Your task to perform on an android device: Open calendar and show me the second week of next month Image 0: 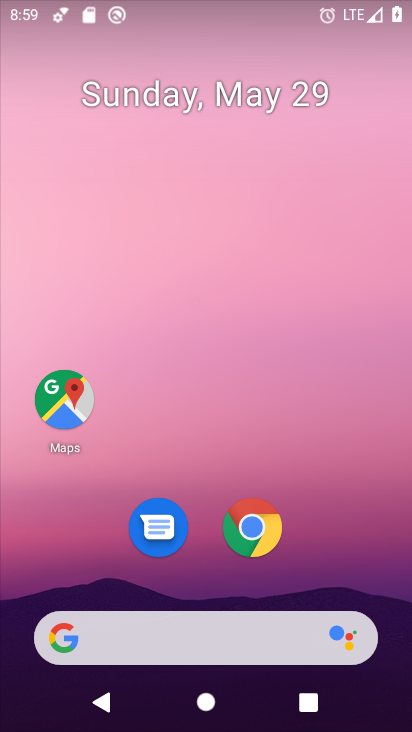
Step 0: drag from (208, 579) to (233, 0)
Your task to perform on an android device: Open calendar and show me the second week of next month Image 1: 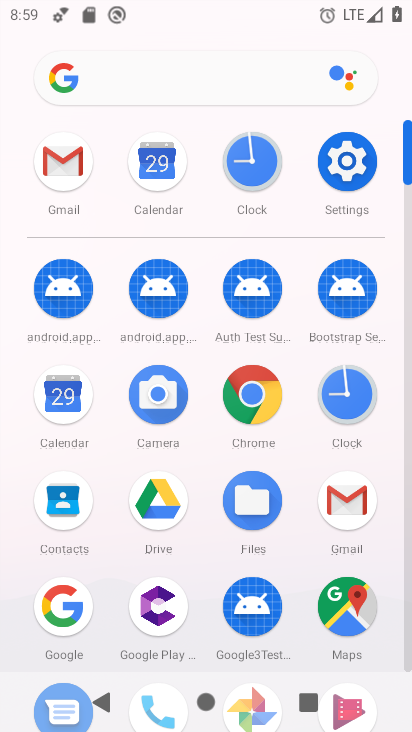
Step 1: click (61, 393)
Your task to perform on an android device: Open calendar and show me the second week of next month Image 2: 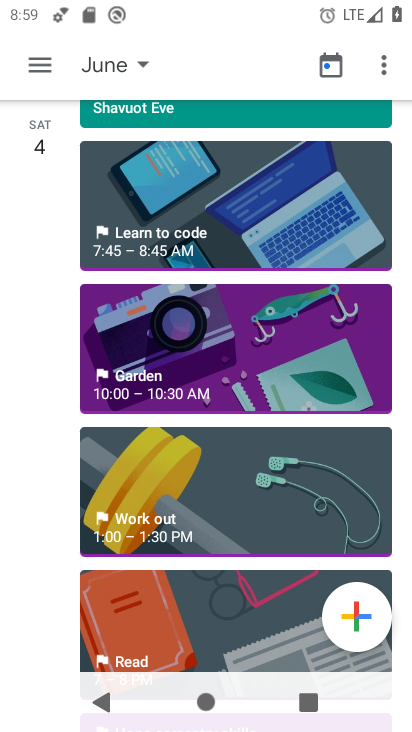
Step 2: click (138, 63)
Your task to perform on an android device: Open calendar and show me the second week of next month Image 3: 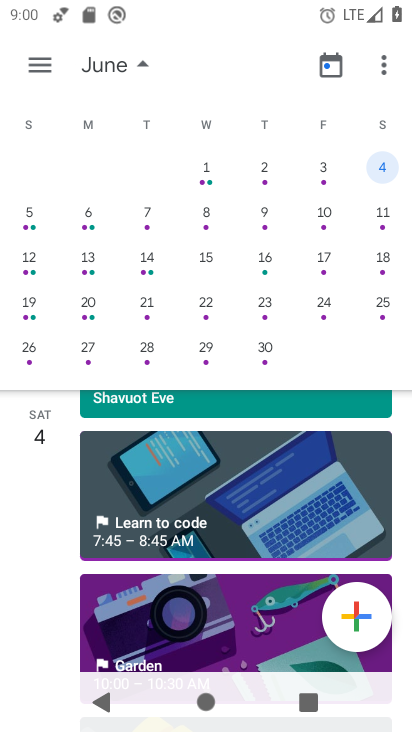
Step 3: click (29, 222)
Your task to perform on an android device: Open calendar and show me the second week of next month Image 4: 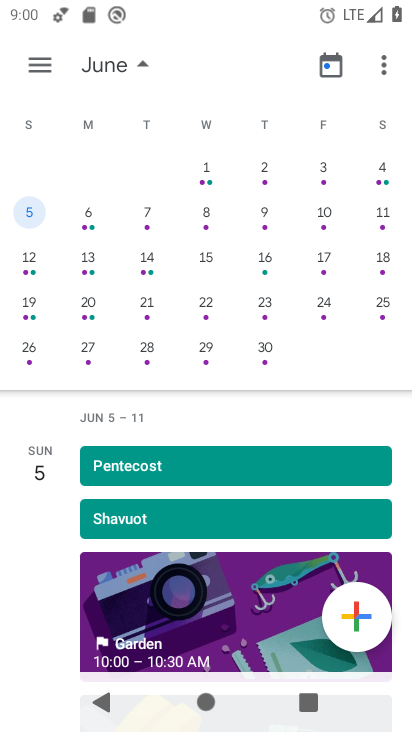
Step 4: click (142, 59)
Your task to perform on an android device: Open calendar and show me the second week of next month Image 5: 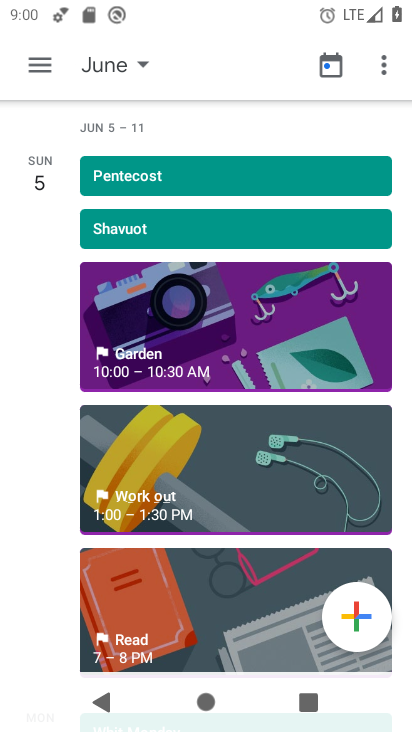
Step 5: drag from (44, 496) to (72, 139)
Your task to perform on an android device: Open calendar and show me the second week of next month Image 6: 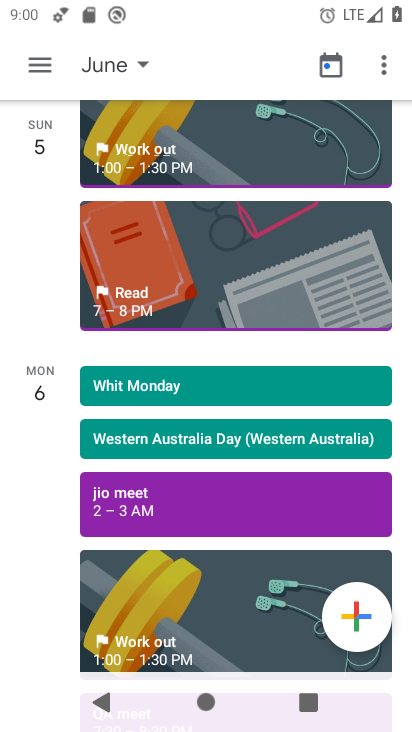
Step 6: drag from (42, 552) to (65, 172)
Your task to perform on an android device: Open calendar and show me the second week of next month Image 7: 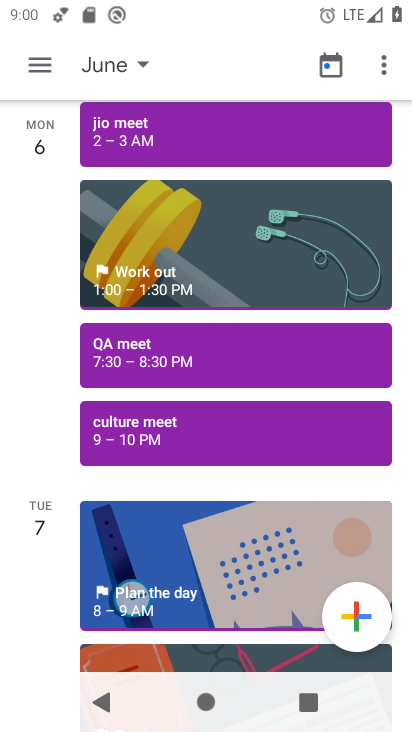
Step 7: drag from (51, 529) to (79, 155)
Your task to perform on an android device: Open calendar and show me the second week of next month Image 8: 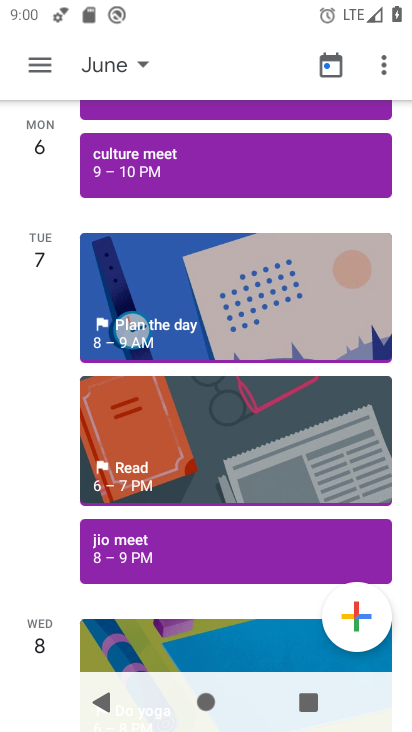
Step 8: click (49, 452)
Your task to perform on an android device: Open calendar and show me the second week of next month Image 9: 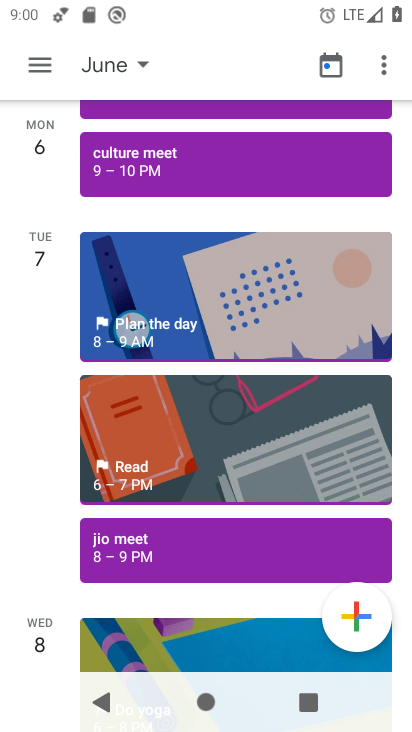
Step 9: task complete